Your task to perform on an android device: check out phone information Image 0: 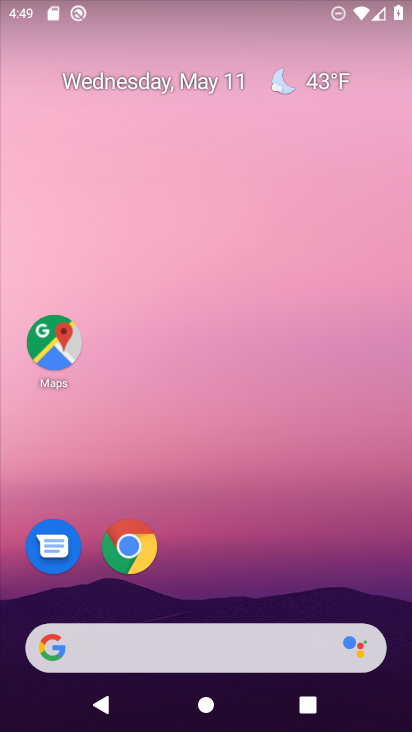
Step 0: drag from (216, 585) to (224, 311)
Your task to perform on an android device: check out phone information Image 1: 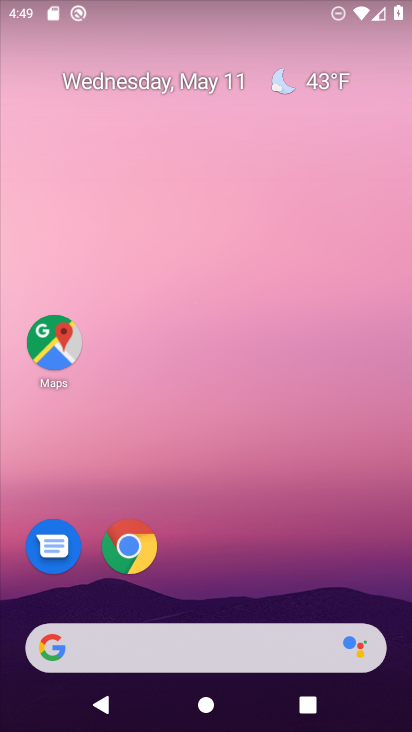
Step 1: drag from (183, 563) to (187, 258)
Your task to perform on an android device: check out phone information Image 2: 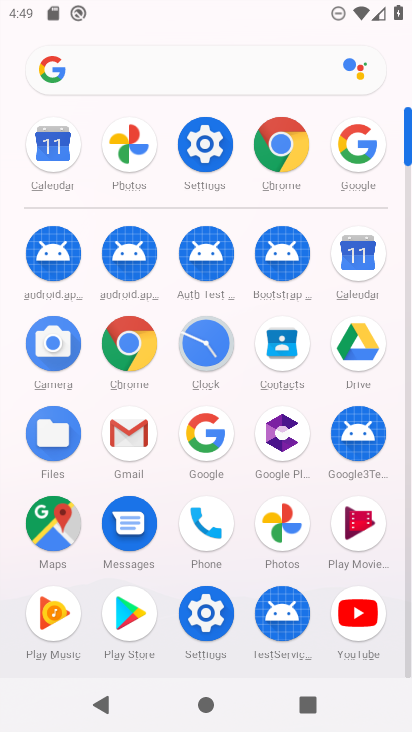
Step 2: click (203, 532)
Your task to perform on an android device: check out phone information Image 3: 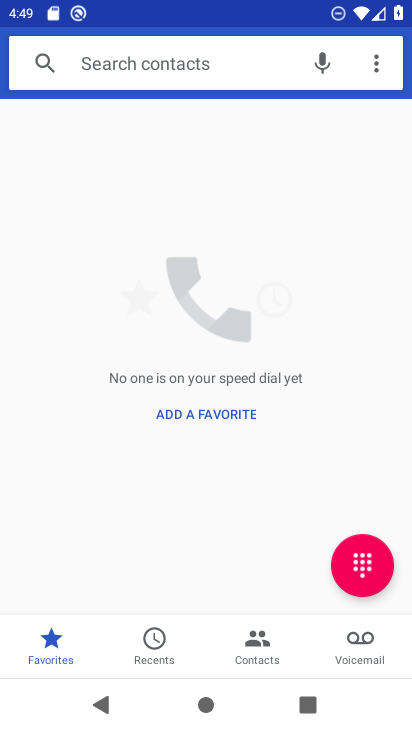
Step 3: press back button
Your task to perform on an android device: check out phone information Image 4: 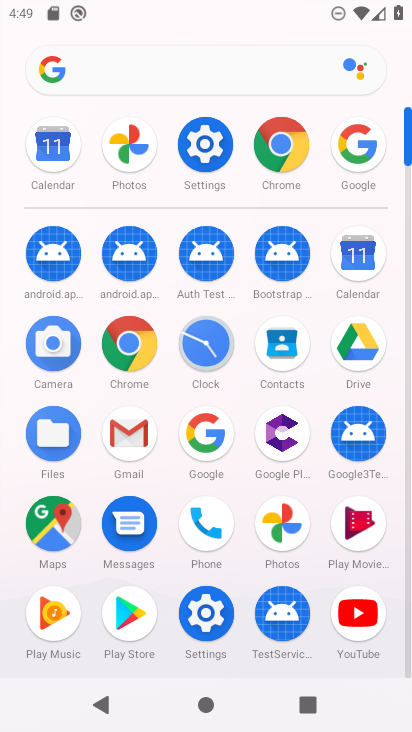
Step 4: click (211, 535)
Your task to perform on an android device: check out phone information Image 5: 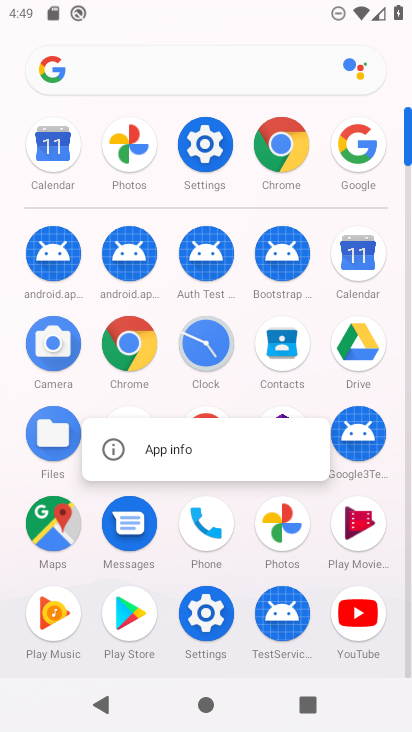
Step 5: click (184, 449)
Your task to perform on an android device: check out phone information Image 6: 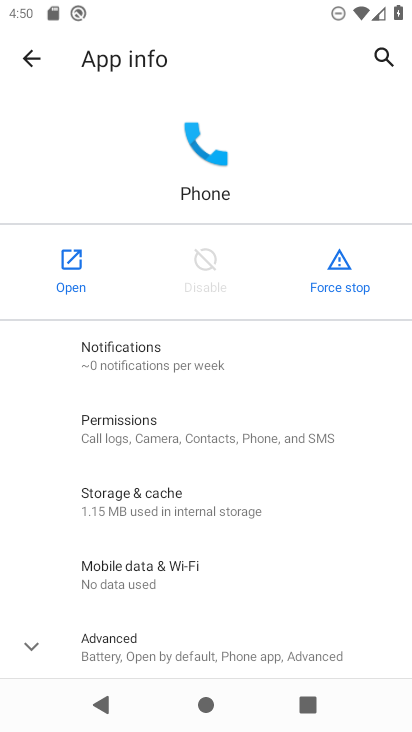
Step 6: click (151, 651)
Your task to perform on an android device: check out phone information Image 7: 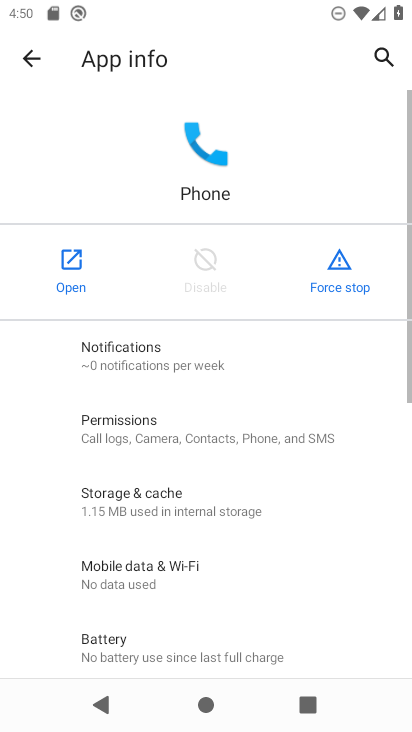
Step 7: task complete